Your task to perform on an android device: turn on the 24-hour format for clock Image 0: 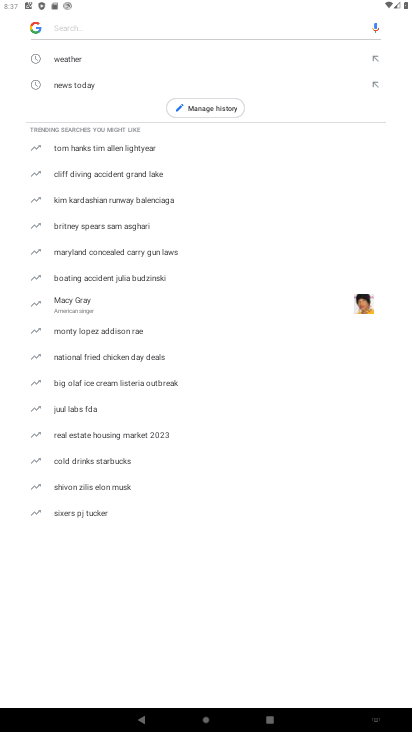
Step 0: press home button
Your task to perform on an android device: turn on the 24-hour format for clock Image 1: 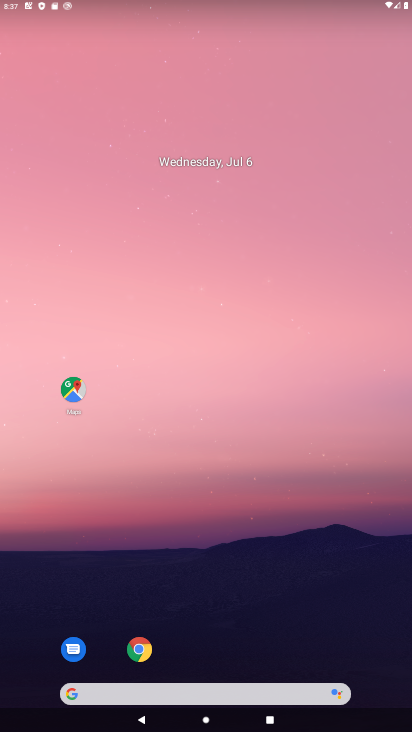
Step 1: drag from (222, 628) to (377, 51)
Your task to perform on an android device: turn on the 24-hour format for clock Image 2: 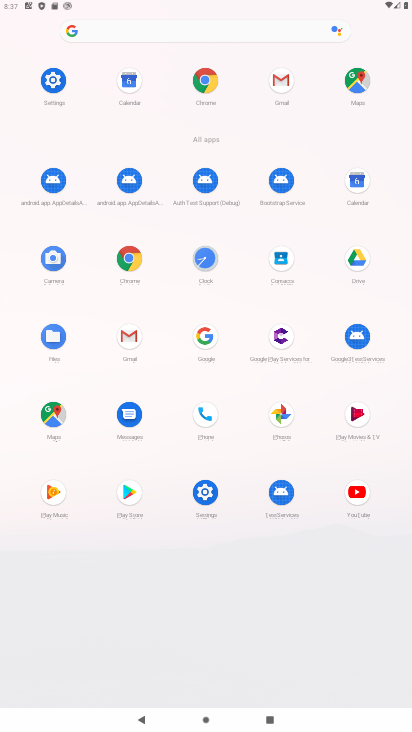
Step 2: click (213, 493)
Your task to perform on an android device: turn on the 24-hour format for clock Image 3: 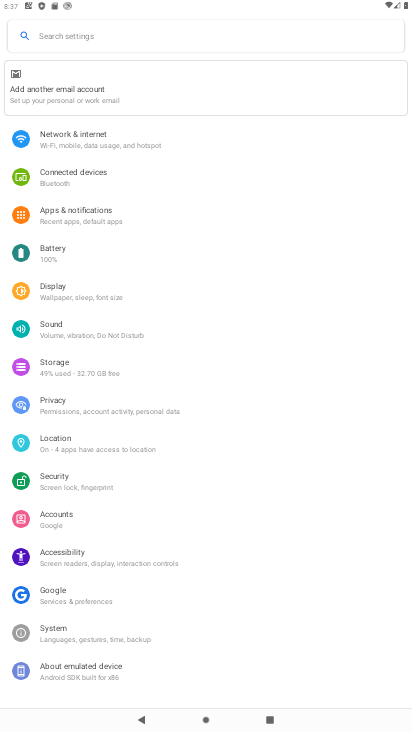
Step 3: drag from (85, 639) to (101, 584)
Your task to perform on an android device: turn on the 24-hour format for clock Image 4: 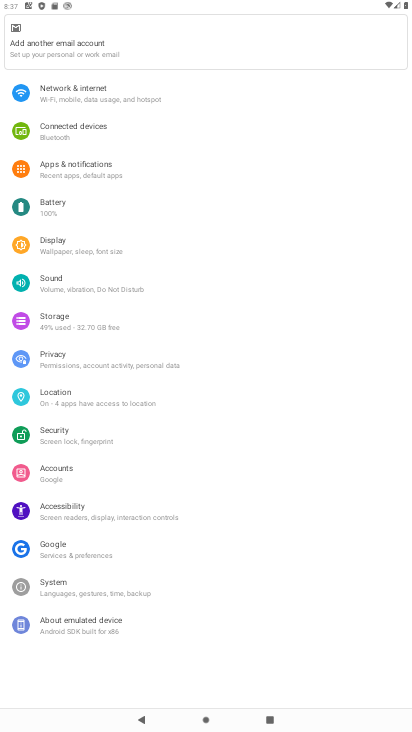
Step 4: click (61, 246)
Your task to perform on an android device: turn on the 24-hour format for clock Image 5: 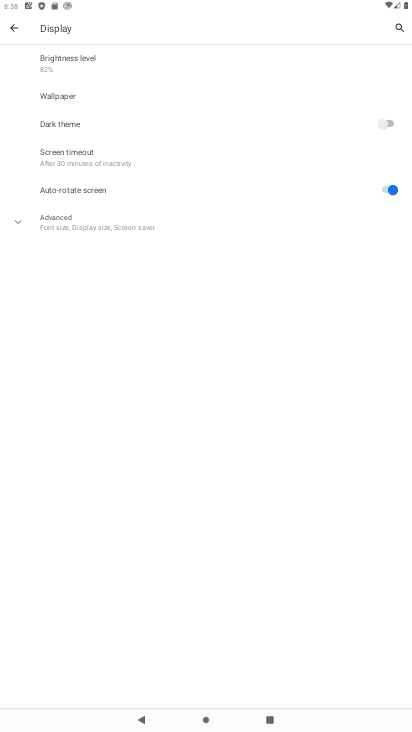
Step 5: click (14, 25)
Your task to perform on an android device: turn on the 24-hour format for clock Image 6: 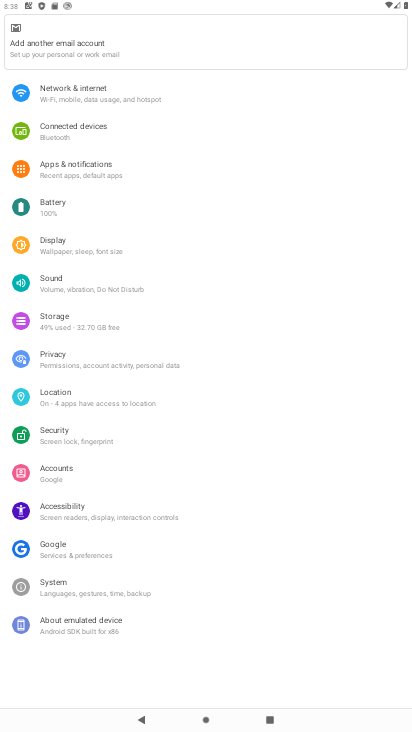
Step 6: click (76, 597)
Your task to perform on an android device: turn on the 24-hour format for clock Image 7: 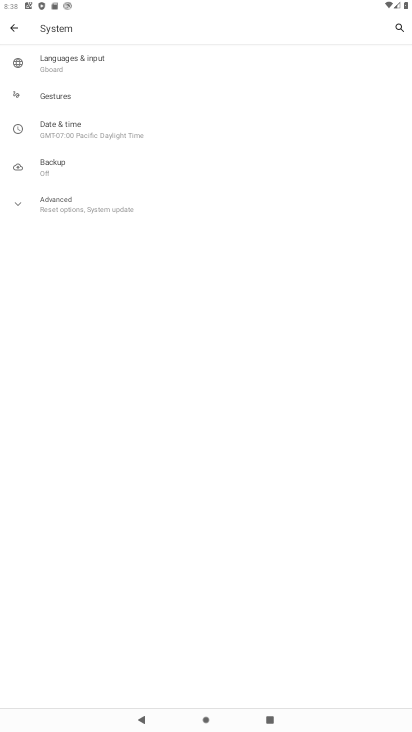
Step 7: click (133, 139)
Your task to perform on an android device: turn on the 24-hour format for clock Image 8: 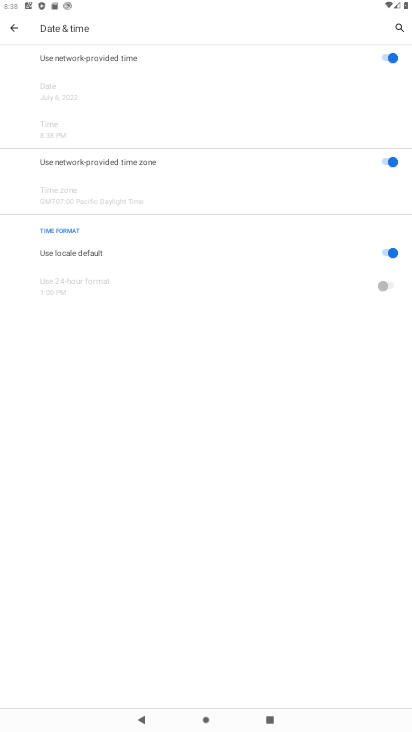
Step 8: click (384, 255)
Your task to perform on an android device: turn on the 24-hour format for clock Image 9: 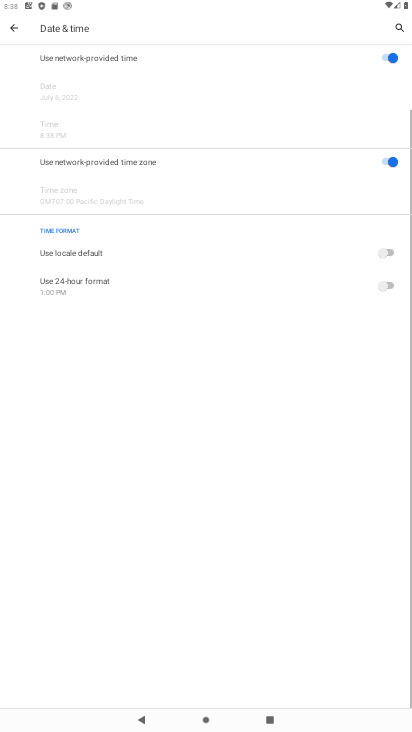
Step 9: click (398, 282)
Your task to perform on an android device: turn on the 24-hour format for clock Image 10: 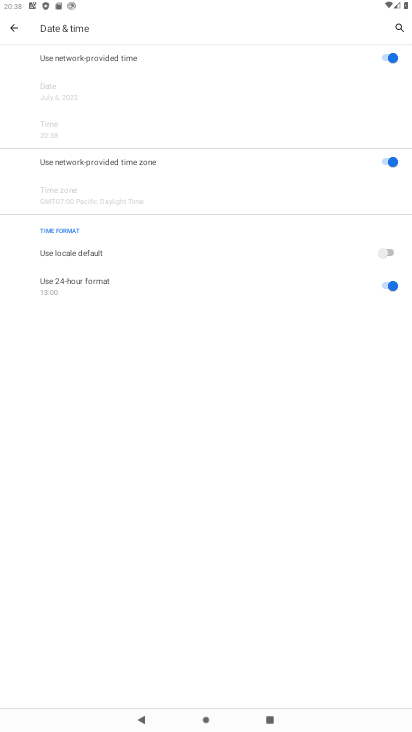
Step 10: task complete